Your task to perform on an android device: search for starred emails in the gmail app Image 0: 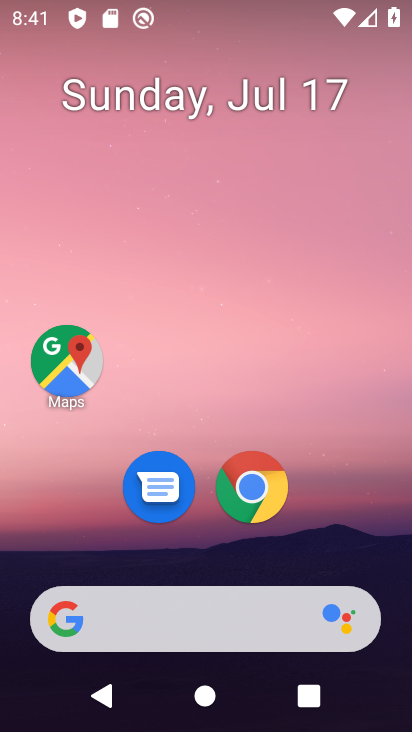
Step 0: press home button
Your task to perform on an android device: search for starred emails in the gmail app Image 1: 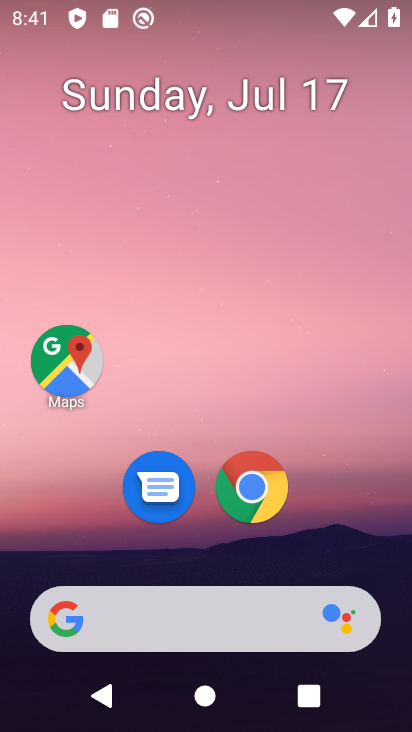
Step 1: press home button
Your task to perform on an android device: search for starred emails in the gmail app Image 2: 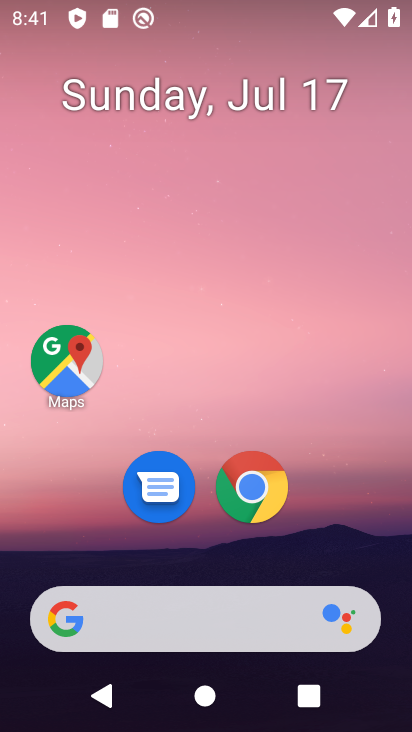
Step 2: press home button
Your task to perform on an android device: search for starred emails in the gmail app Image 3: 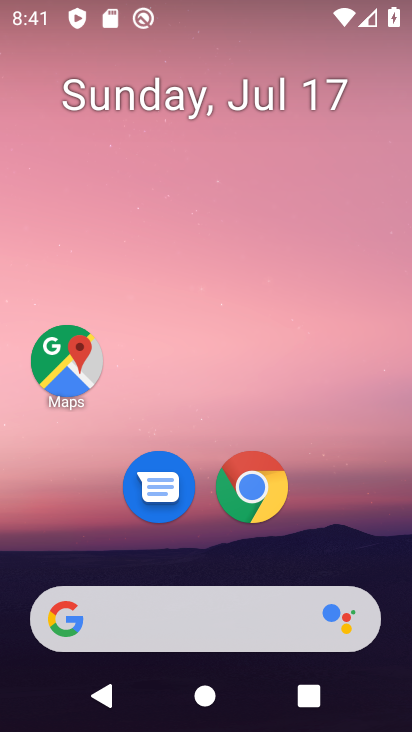
Step 3: drag from (362, 522) to (258, 0)
Your task to perform on an android device: search for starred emails in the gmail app Image 4: 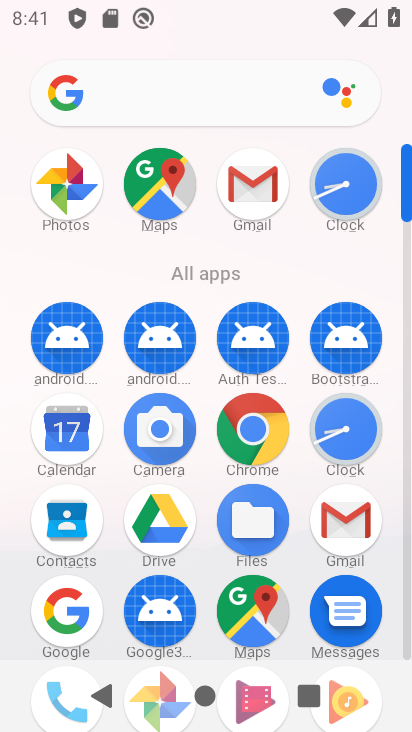
Step 4: click (243, 183)
Your task to perform on an android device: search for starred emails in the gmail app Image 5: 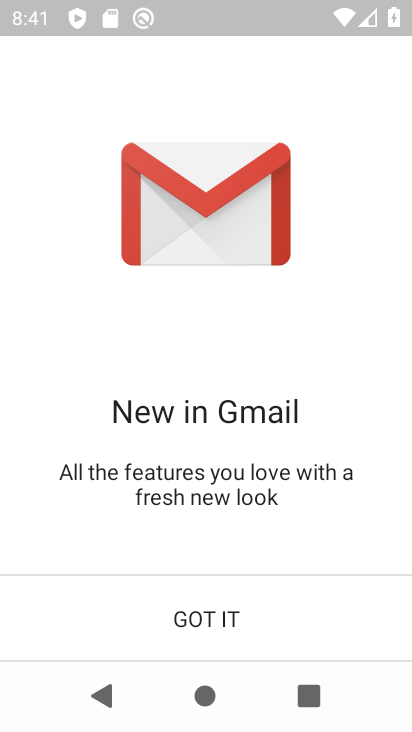
Step 5: click (200, 628)
Your task to perform on an android device: search for starred emails in the gmail app Image 6: 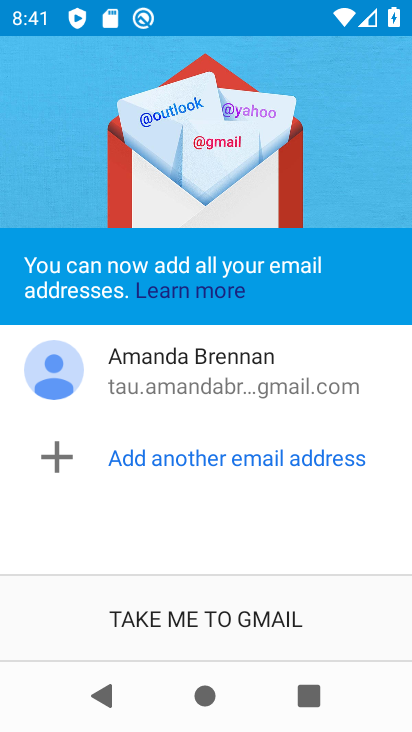
Step 6: click (167, 621)
Your task to perform on an android device: search for starred emails in the gmail app Image 7: 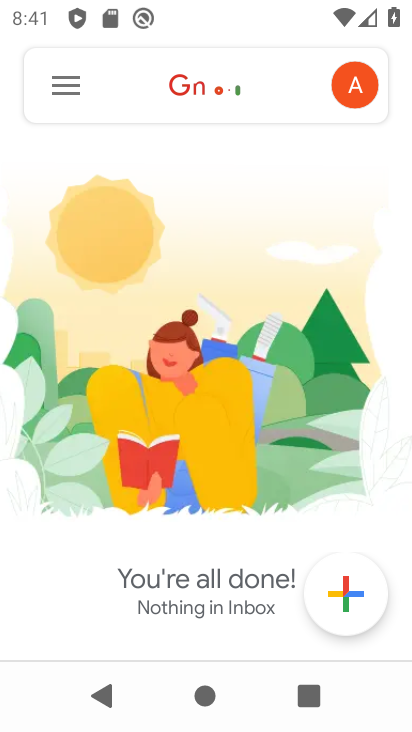
Step 7: click (72, 90)
Your task to perform on an android device: search for starred emails in the gmail app Image 8: 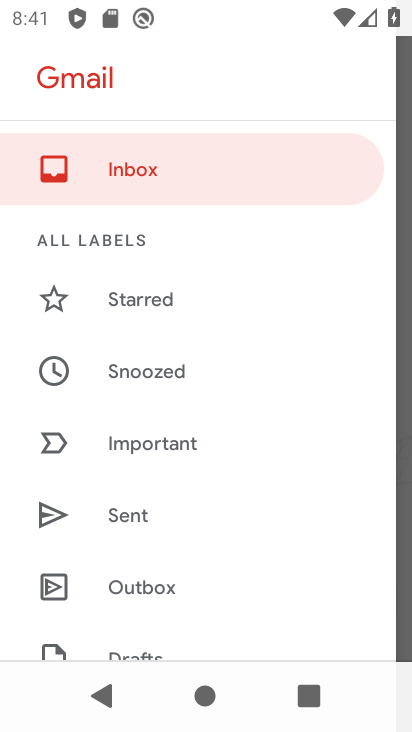
Step 8: click (179, 291)
Your task to perform on an android device: search for starred emails in the gmail app Image 9: 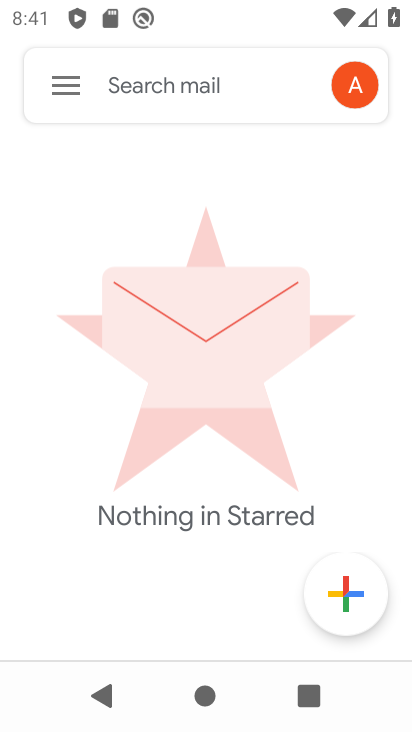
Step 9: task complete